Your task to perform on an android device: change text size in settings app Image 0: 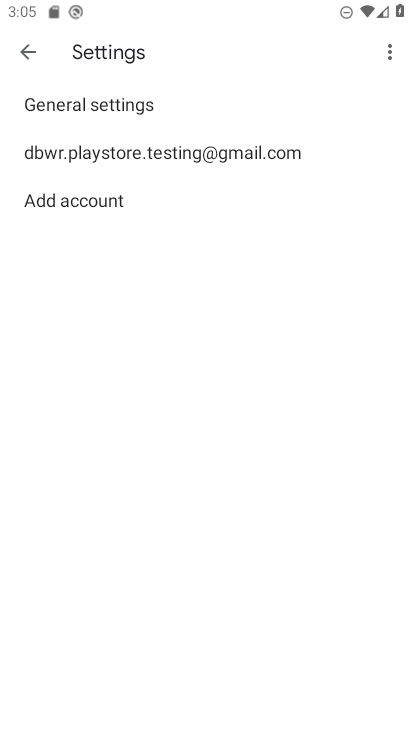
Step 0: press home button
Your task to perform on an android device: change text size in settings app Image 1: 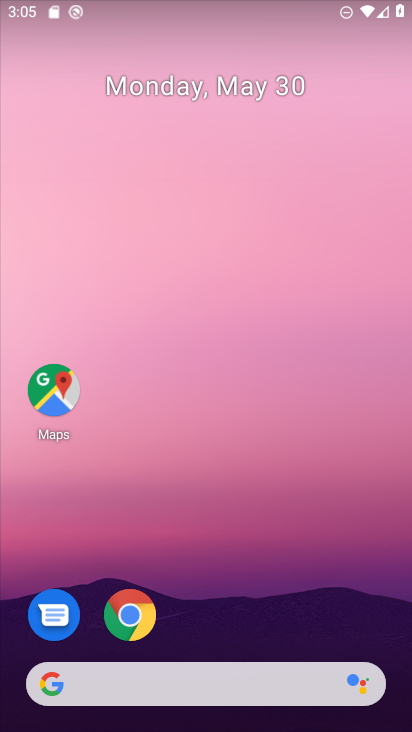
Step 1: drag from (315, 568) to (301, 66)
Your task to perform on an android device: change text size in settings app Image 2: 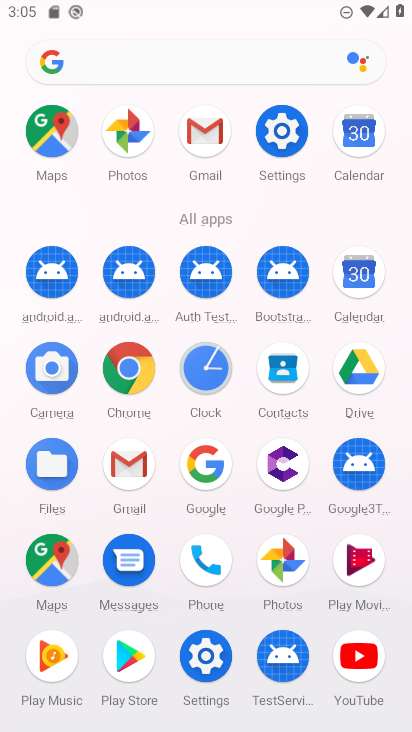
Step 2: click (279, 154)
Your task to perform on an android device: change text size in settings app Image 3: 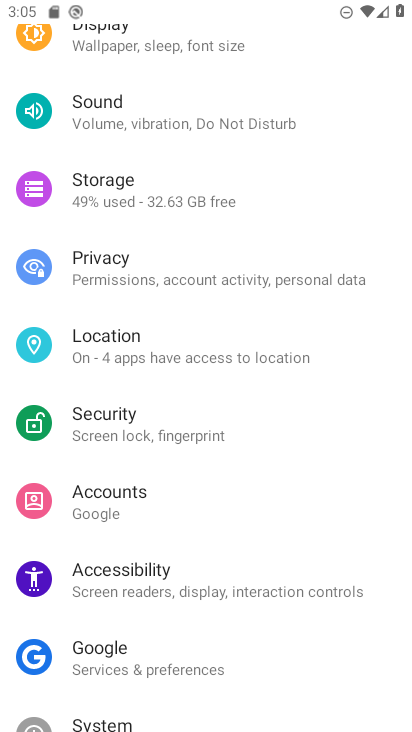
Step 3: drag from (195, 153) to (191, 371)
Your task to perform on an android device: change text size in settings app Image 4: 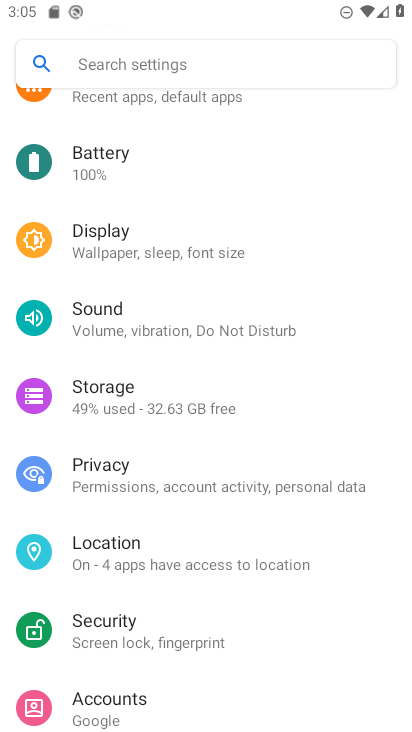
Step 4: click (110, 255)
Your task to perform on an android device: change text size in settings app Image 5: 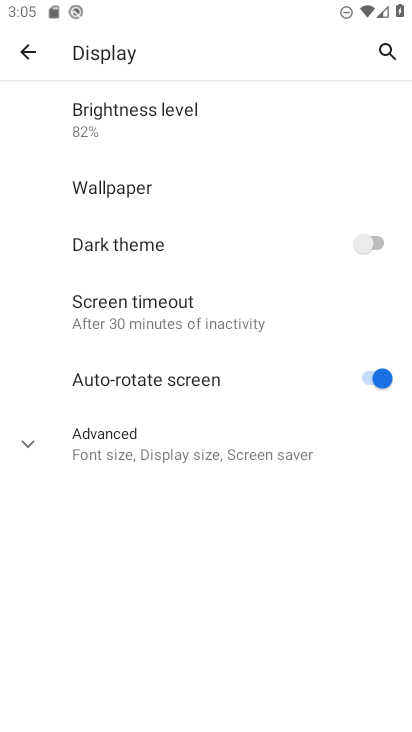
Step 5: click (218, 434)
Your task to perform on an android device: change text size in settings app Image 6: 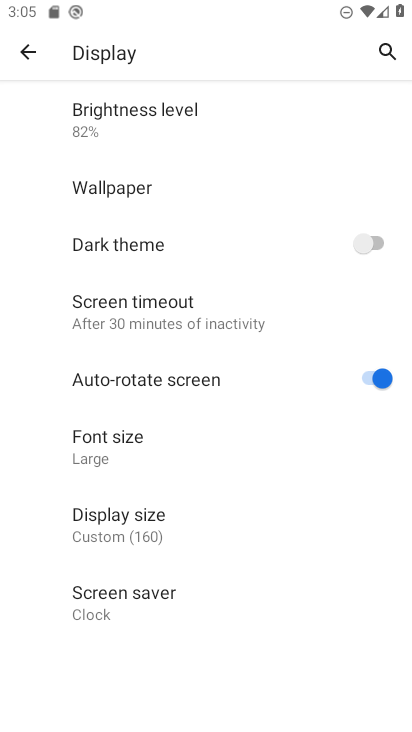
Step 6: click (159, 449)
Your task to perform on an android device: change text size in settings app Image 7: 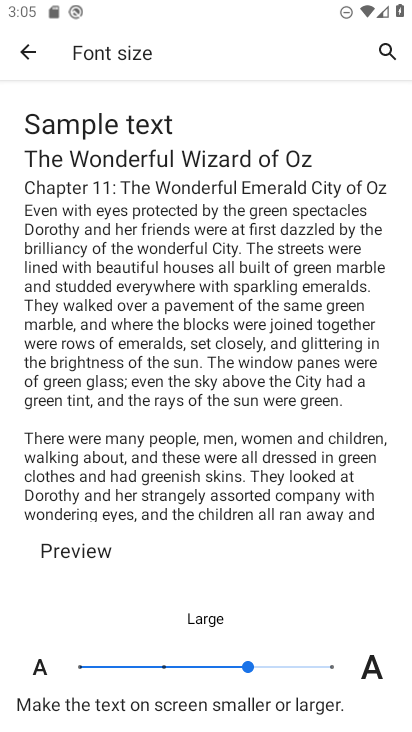
Step 7: task complete